Your task to perform on an android device: star an email in the gmail app Image 0: 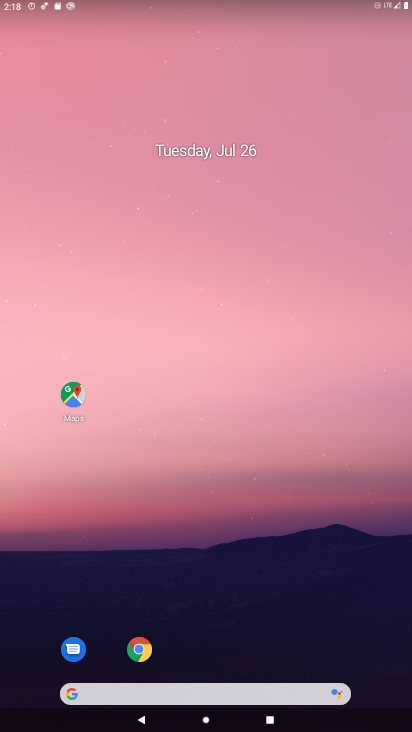
Step 0: drag from (330, 618) to (221, 45)
Your task to perform on an android device: star an email in the gmail app Image 1: 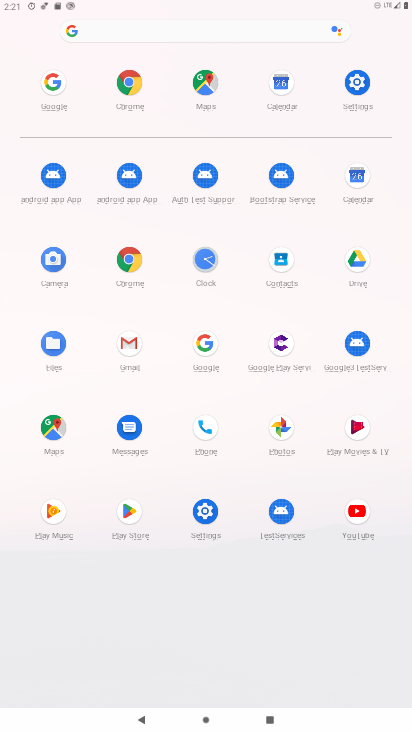
Step 1: click (123, 334)
Your task to perform on an android device: star an email in the gmail app Image 2: 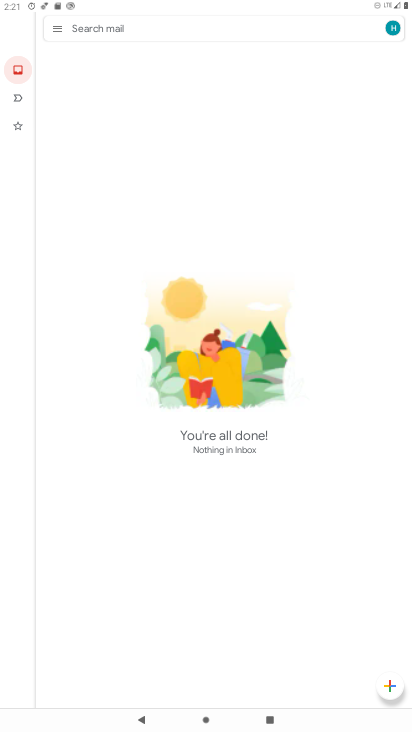
Step 2: task complete